Your task to perform on an android device: Search for Mexican restaurants on Maps Image 0: 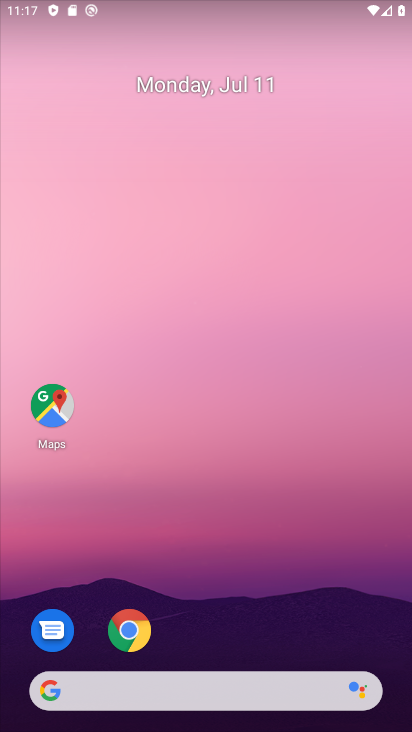
Step 0: click (67, 404)
Your task to perform on an android device: Search for Mexican restaurants on Maps Image 1: 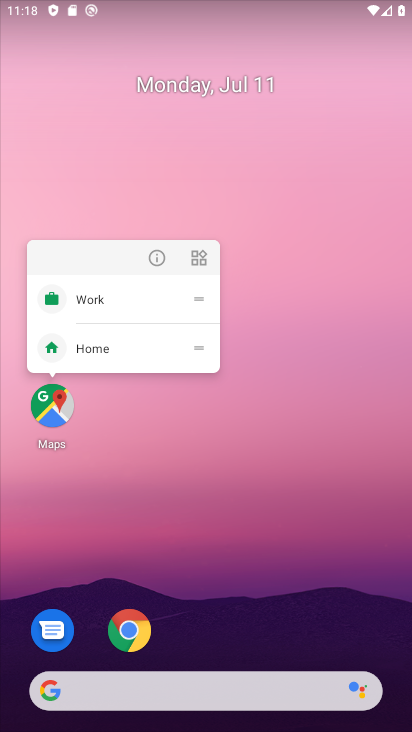
Step 1: click (63, 418)
Your task to perform on an android device: Search for Mexican restaurants on Maps Image 2: 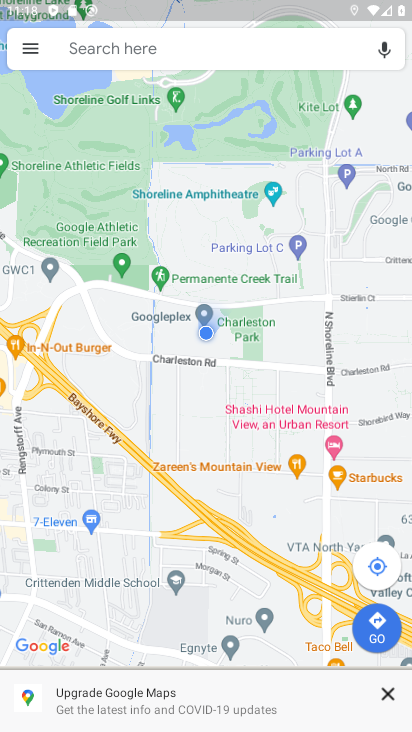
Step 2: click (220, 42)
Your task to perform on an android device: Search for Mexican restaurants on Maps Image 3: 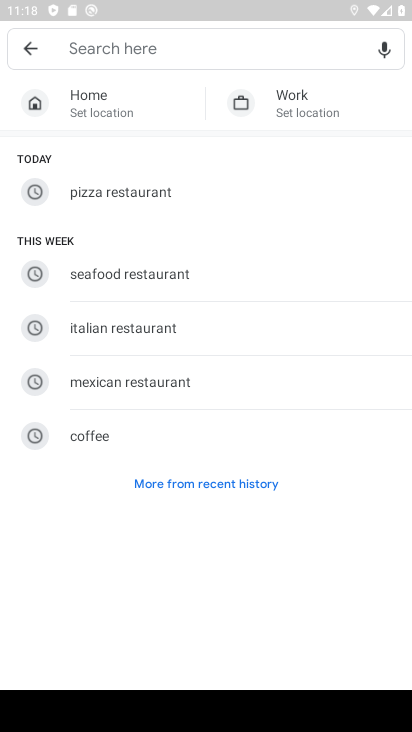
Step 3: click (114, 376)
Your task to perform on an android device: Search for Mexican restaurants on Maps Image 4: 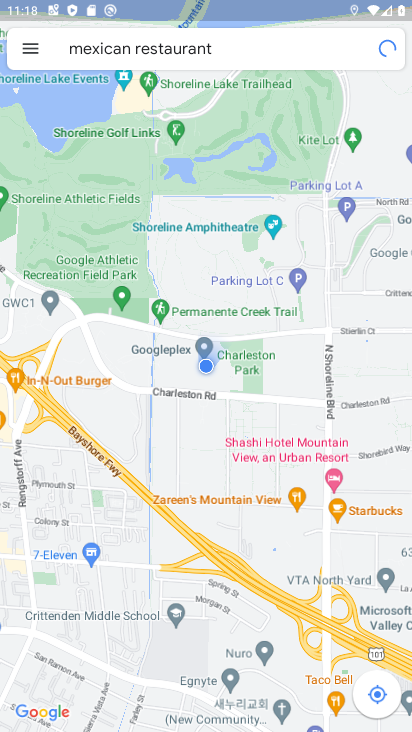
Step 4: task complete